Your task to perform on an android device: Do I have any events today? Image 0: 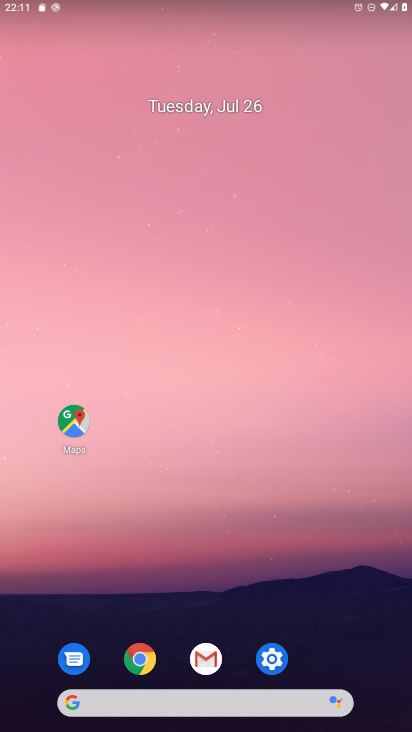
Step 0: drag from (252, 704) to (403, 89)
Your task to perform on an android device: Do I have any events today? Image 1: 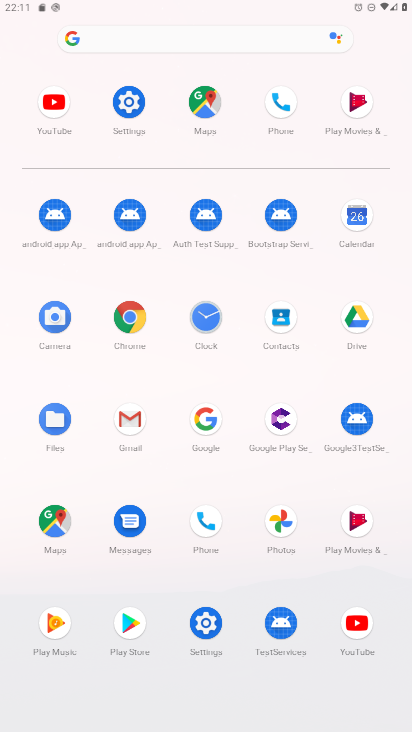
Step 1: click (358, 226)
Your task to perform on an android device: Do I have any events today? Image 2: 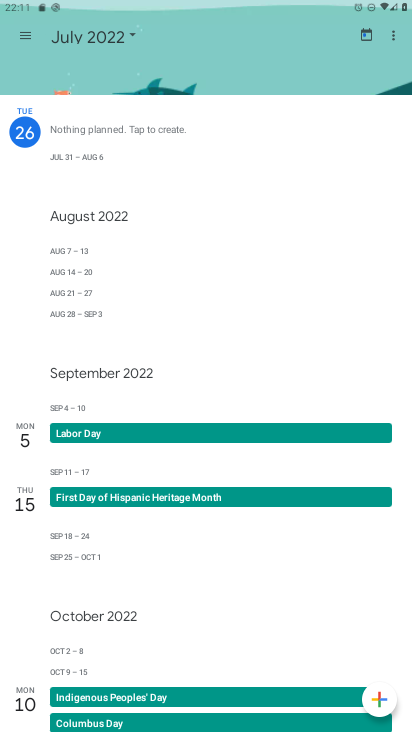
Step 2: click (26, 32)
Your task to perform on an android device: Do I have any events today? Image 3: 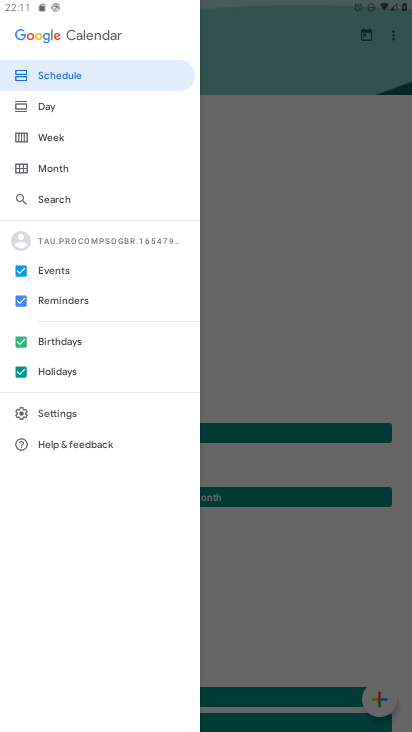
Step 3: click (65, 171)
Your task to perform on an android device: Do I have any events today? Image 4: 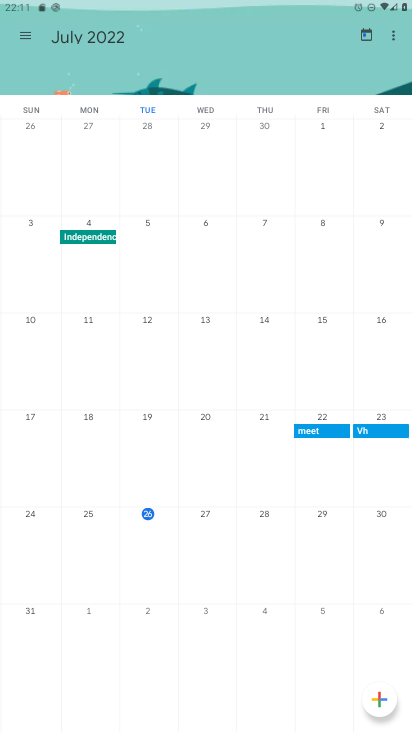
Step 4: click (153, 509)
Your task to perform on an android device: Do I have any events today? Image 5: 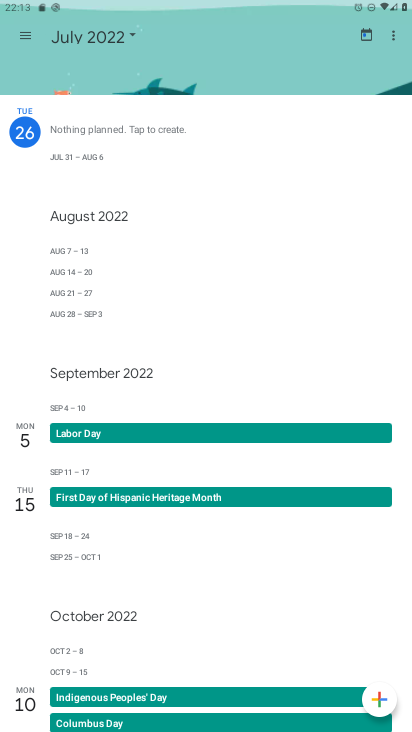
Step 5: task complete